Your task to perform on an android device: turn on location history Image 0: 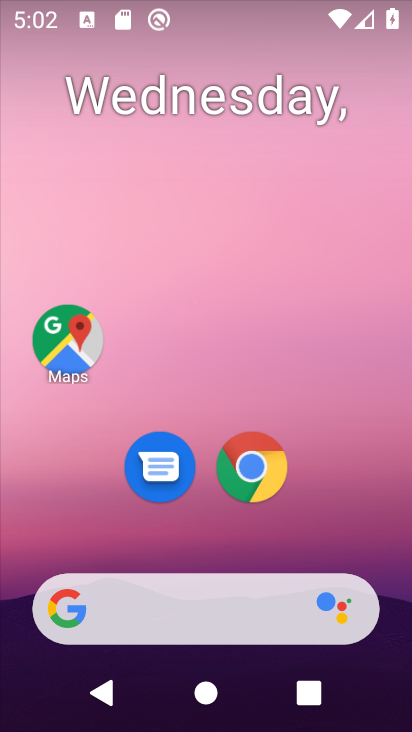
Step 0: click (298, 270)
Your task to perform on an android device: turn on location history Image 1: 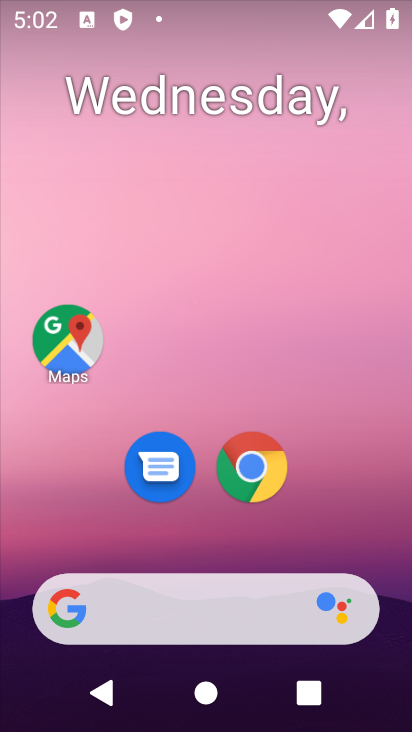
Step 1: drag from (334, 307) to (267, 42)
Your task to perform on an android device: turn on location history Image 2: 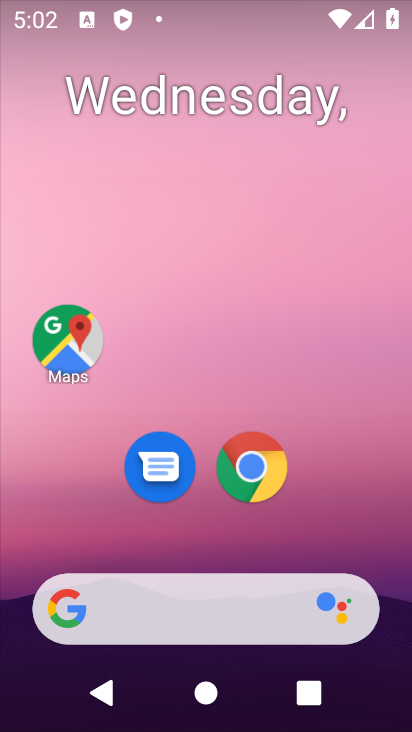
Step 2: drag from (316, 471) to (251, 105)
Your task to perform on an android device: turn on location history Image 3: 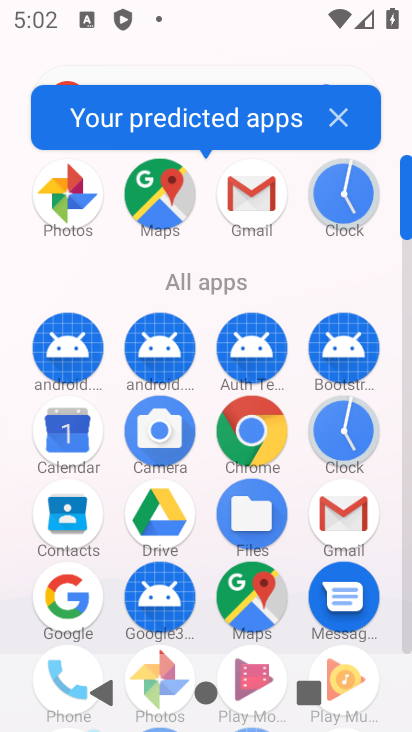
Step 3: drag from (214, 476) to (163, 59)
Your task to perform on an android device: turn on location history Image 4: 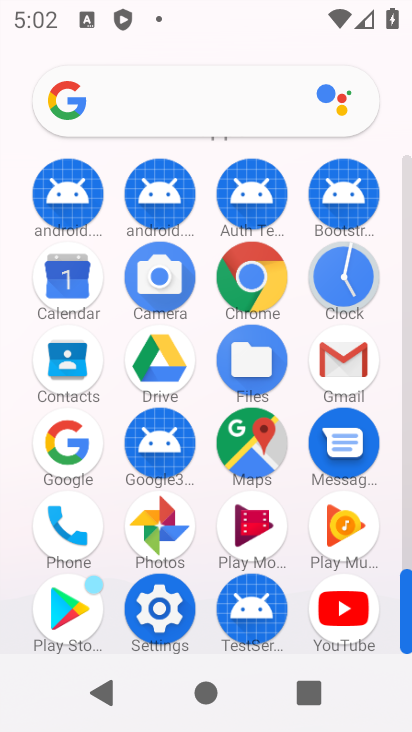
Step 4: click (173, 609)
Your task to perform on an android device: turn on location history Image 5: 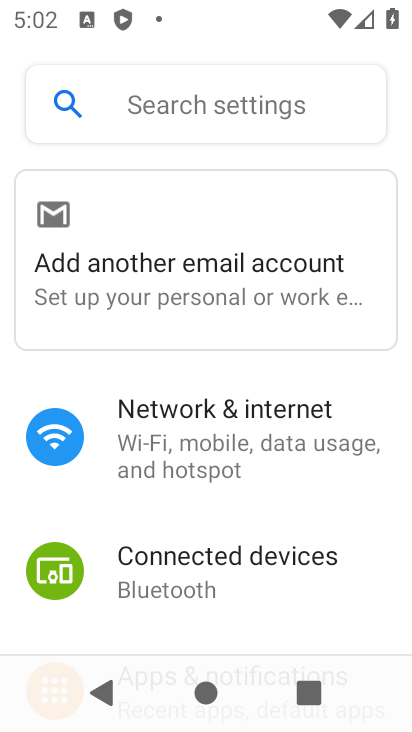
Step 5: drag from (280, 390) to (256, 184)
Your task to perform on an android device: turn on location history Image 6: 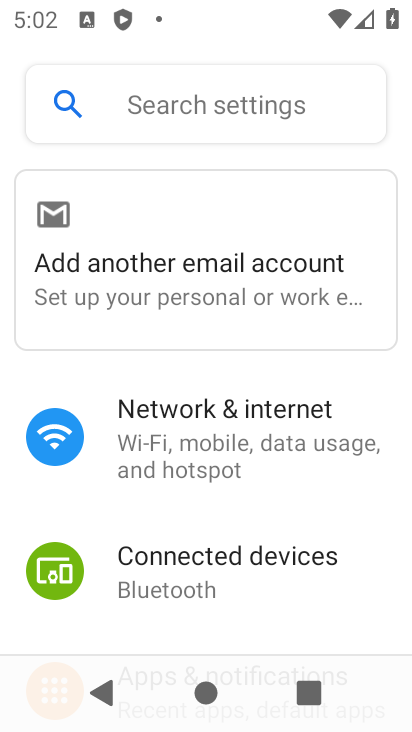
Step 6: drag from (268, 505) to (223, 7)
Your task to perform on an android device: turn on location history Image 7: 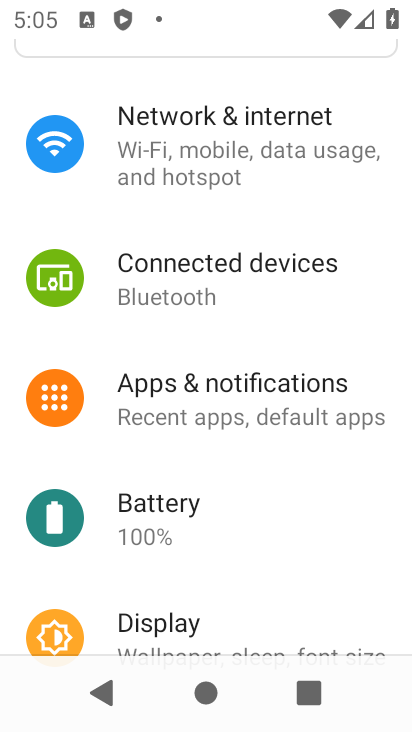
Step 7: drag from (270, 449) to (275, 69)
Your task to perform on an android device: turn on location history Image 8: 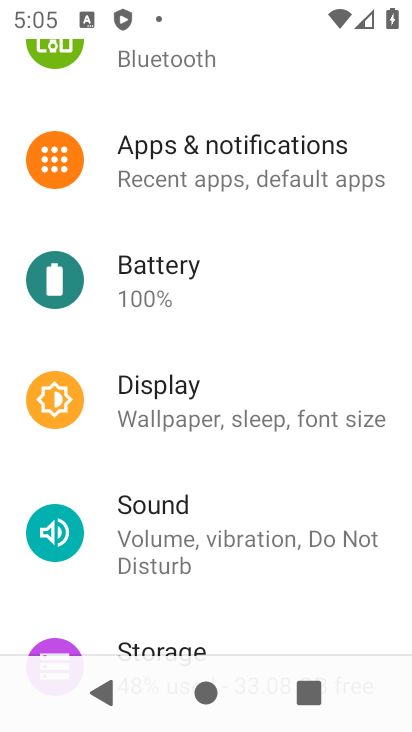
Step 8: drag from (222, 94) to (210, 42)
Your task to perform on an android device: turn on location history Image 9: 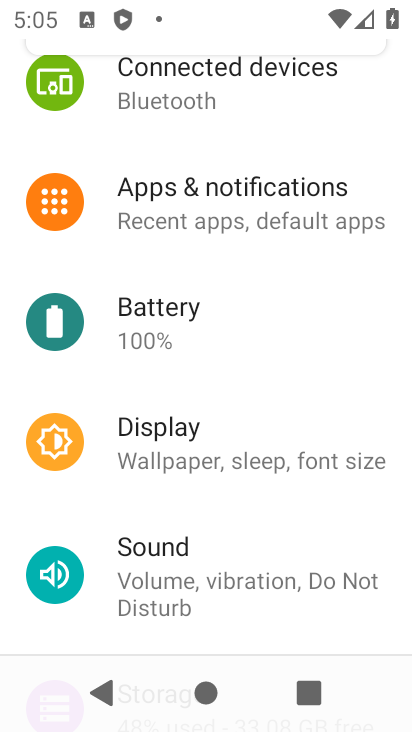
Step 9: drag from (278, 578) to (291, 72)
Your task to perform on an android device: turn on location history Image 10: 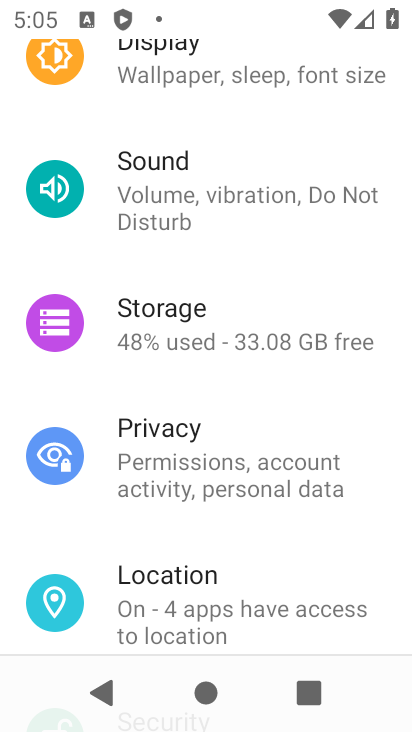
Step 10: click (250, 618)
Your task to perform on an android device: turn on location history Image 11: 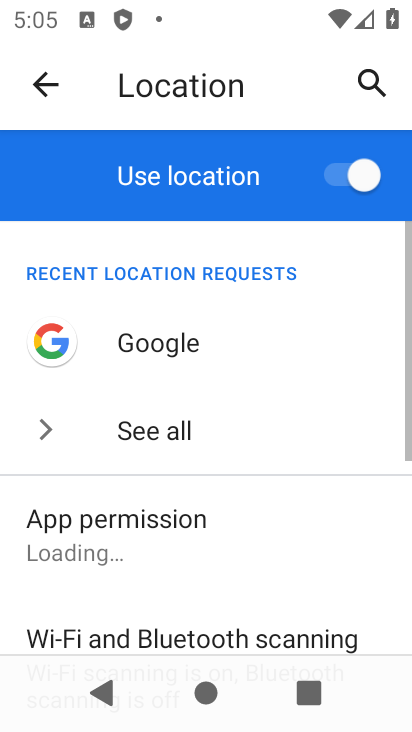
Step 11: drag from (274, 550) to (238, 13)
Your task to perform on an android device: turn on location history Image 12: 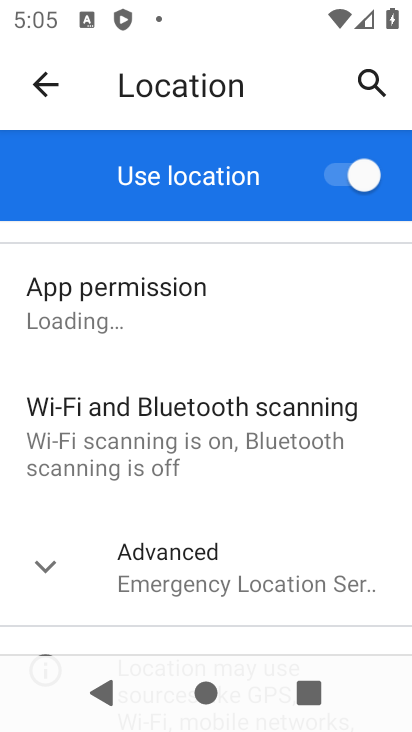
Step 12: drag from (251, 559) to (253, 301)
Your task to perform on an android device: turn on location history Image 13: 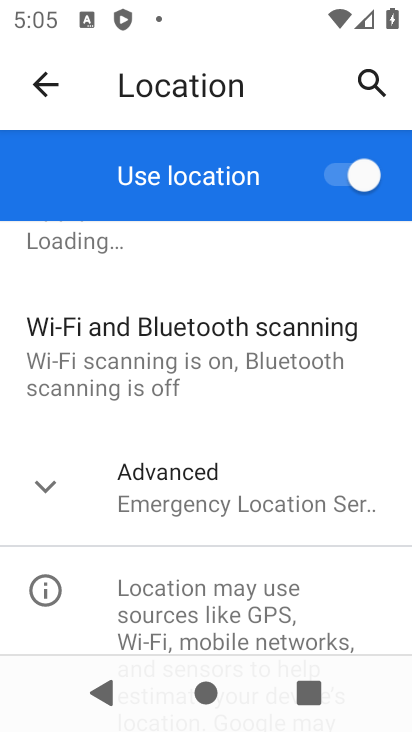
Step 13: drag from (254, 558) to (279, 231)
Your task to perform on an android device: turn on location history Image 14: 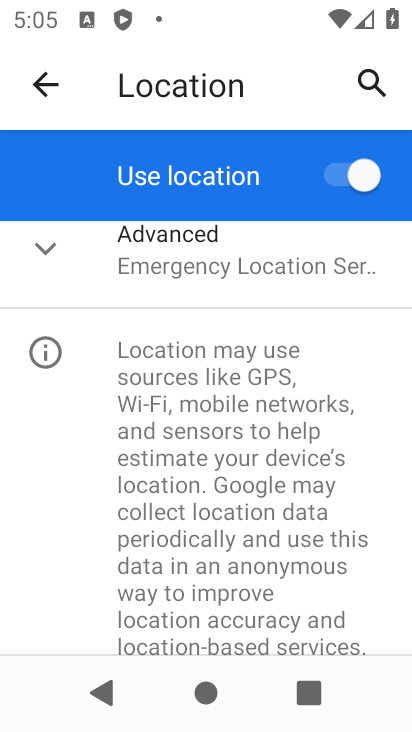
Step 14: click (206, 256)
Your task to perform on an android device: turn on location history Image 15: 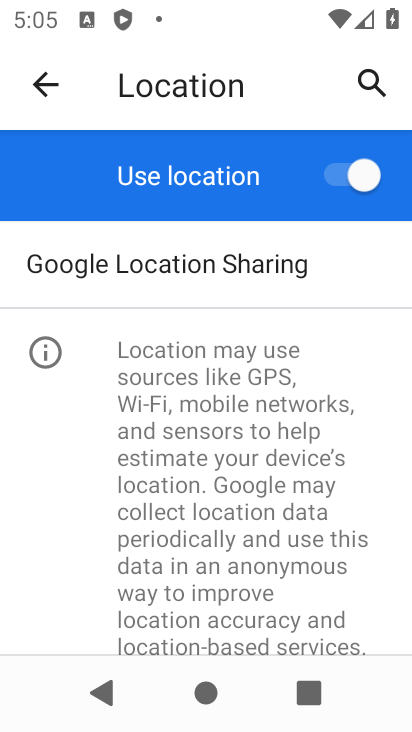
Step 15: drag from (251, 340) to (250, 561)
Your task to perform on an android device: turn on location history Image 16: 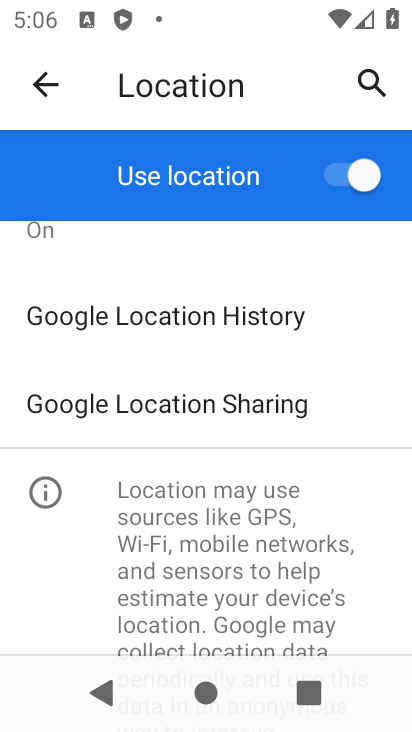
Step 16: drag from (276, 484) to (276, 359)
Your task to perform on an android device: turn on location history Image 17: 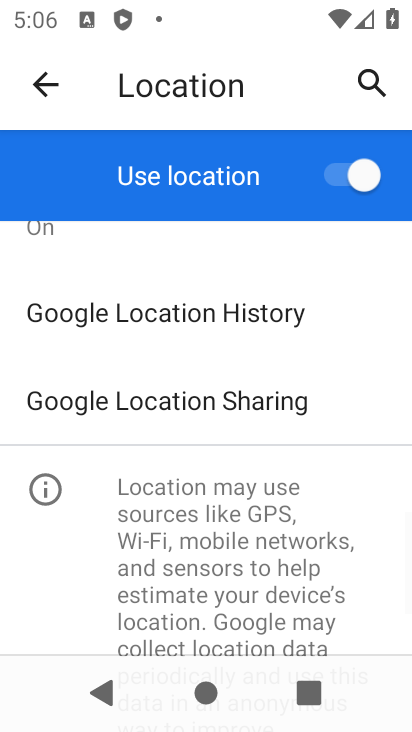
Step 17: click (250, 312)
Your task to perform on an android device: turn on location history Image 18: 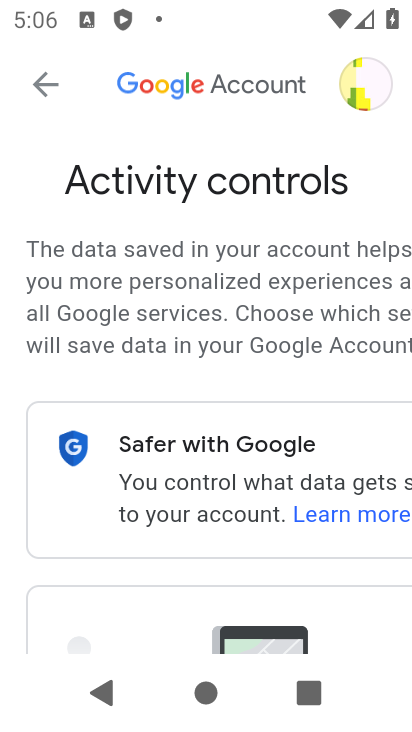
Step 18: task complete